Your task to perform on an android device: Go to Maps Image 0: 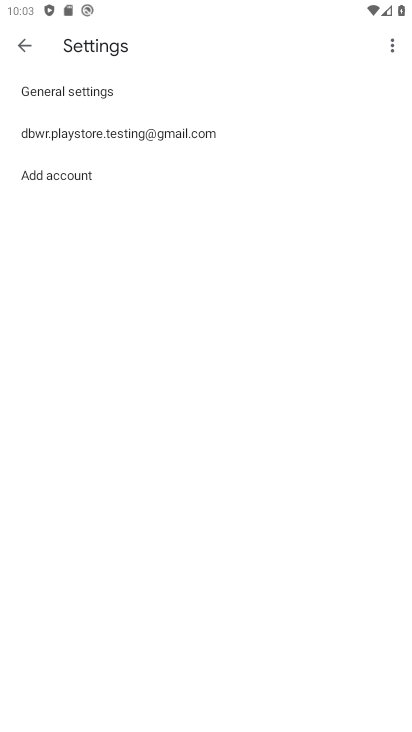
Step 0: press home button
Your task to perform on an android device: Go to Maps Image 1: 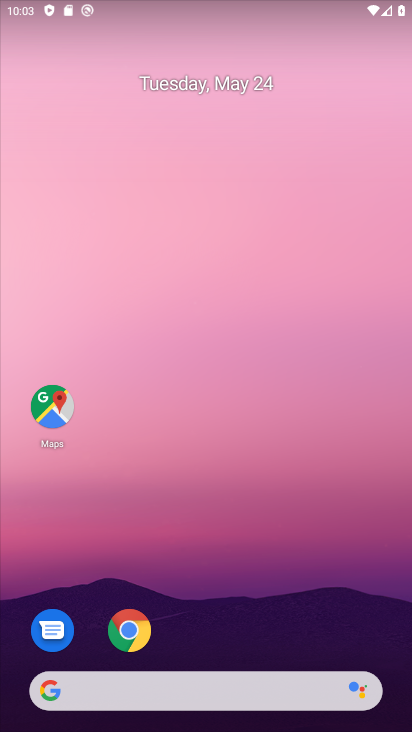
Step 1: click (43, 403)
Your task to perform on an android device: Go to Maps Image 2: 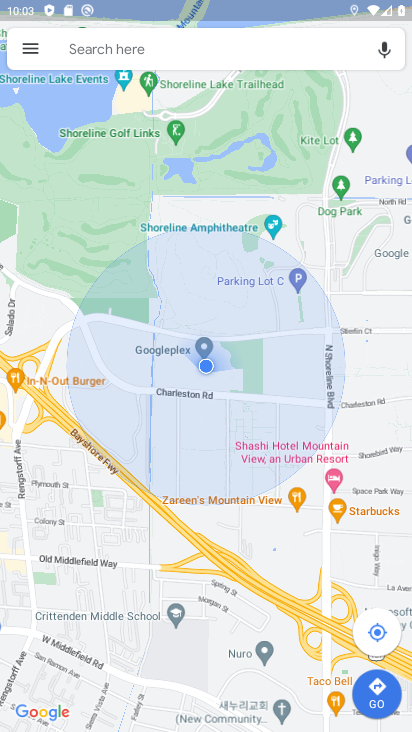
Step 2: task complete